Your task to perform on an android device: toggle show notifications on the lock screen Image 0: 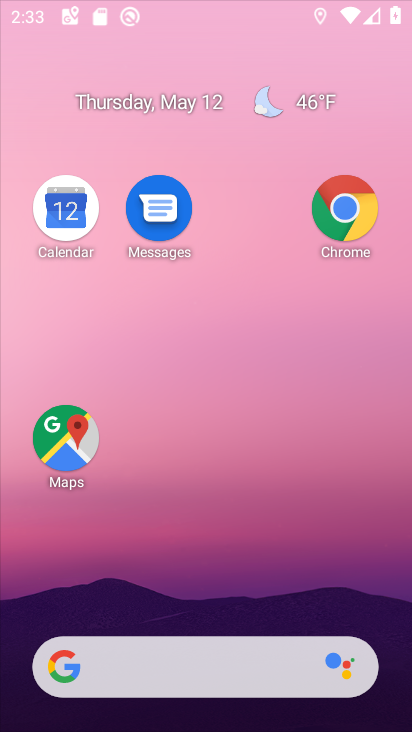
Step 0: drag from (210, 426) to (259, 90)
Your task to perform on an android device: toggle show notifications on the lock screen Image 1: 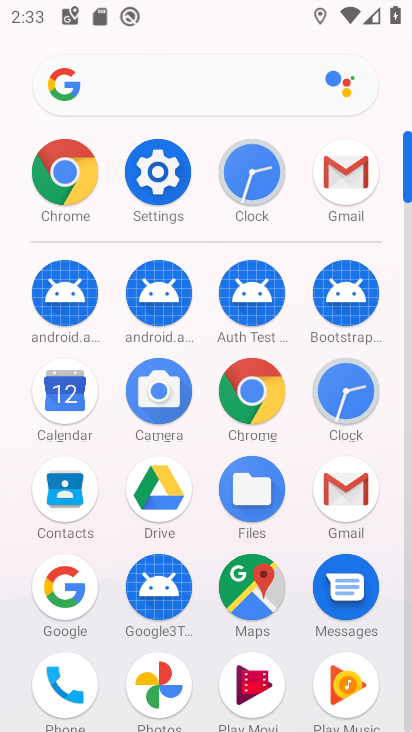
Step 1: click (161, 161)
Your task to perform on an android device: toggle show notifications on the lock screen Image 2: 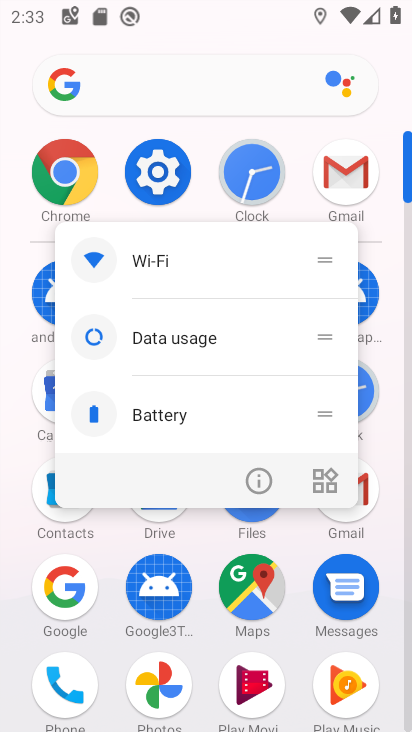
Step 2: click (263, 487)
Your task to perform on an android device: toggle show notifications on the lock screen Image 3: 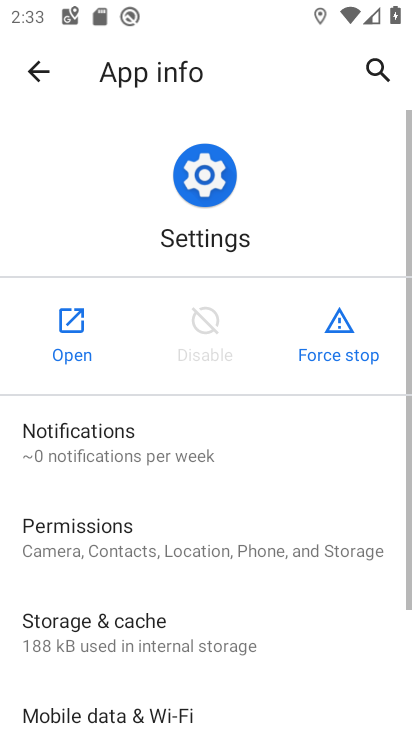
Step 3: click (62, 341)
Your task to perform on an android device: toggle show notifications on the lock screen Image 4: 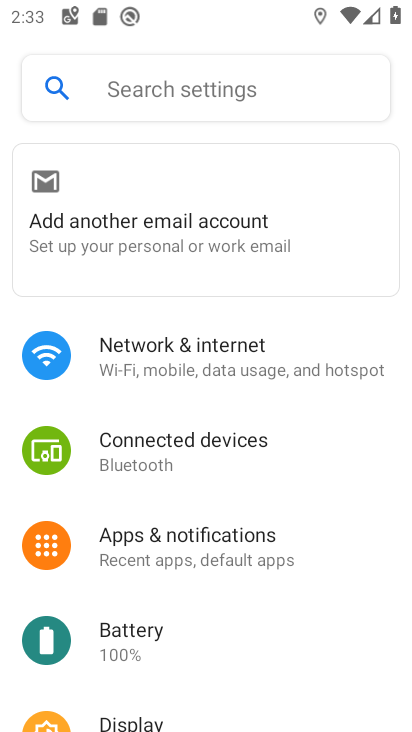
Step 4: drag from (170, 579) to (256, 171)
Your task to perform on an android device: toggle show notifications on the lock screen Image 5: 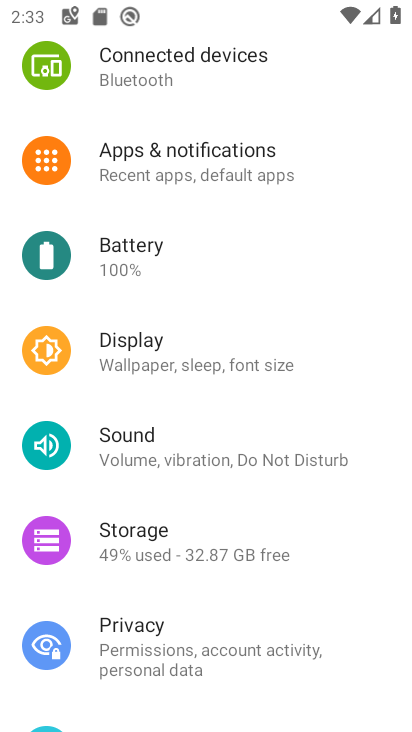
Step 5: click (229, 166)
Your task to perform on an android device: toggle show notifications on the lock screen Image 6: 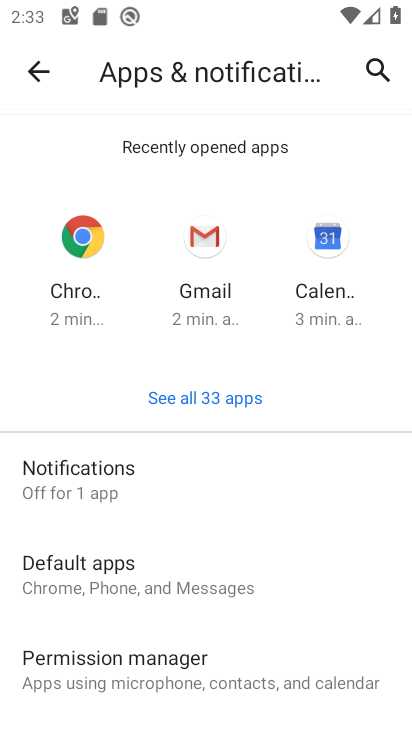
Step 6: click (175, 481)
Your task to perform on an android device: toggle show notifications on the lock screen Image 7: 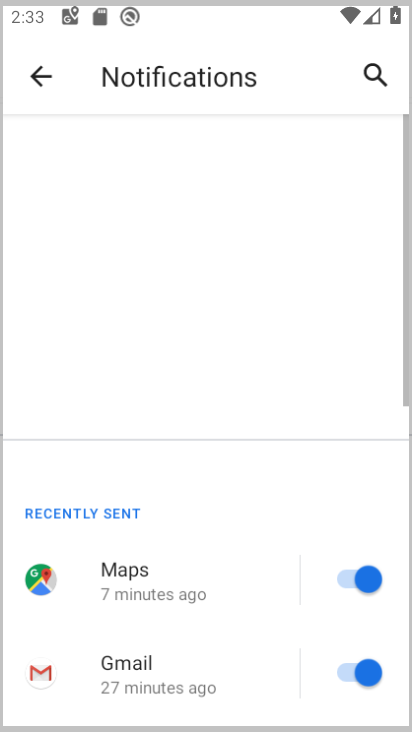
Step 7: drag from (175, 481) to (234, 115)
Your task to perform on an android device: toggle show notifications on the lock screen Image 8: 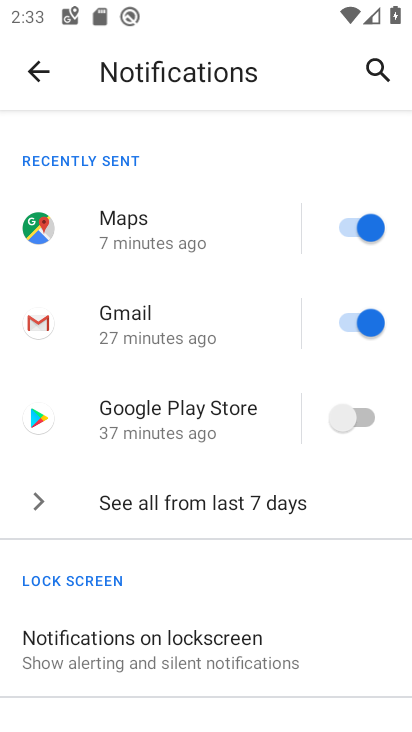
Step 8: drag from (206, 582) to (257, 283)
Your task to perform on an android device: toggle show notifications on the lock screen Image 9: 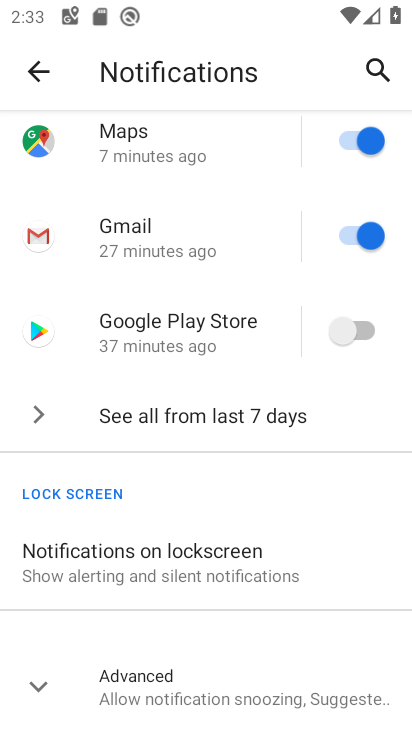
Step 9: click (193, 572)
Your task to perform on an android device: toggle show notifications on the lock screen Image 10: 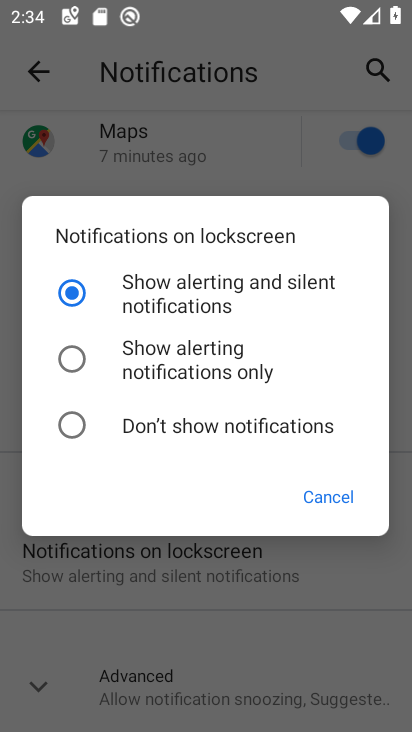
Step 10: click (137, 348)
Your task to perform on an android device: toggle show notifications on the lock screen Image 11: 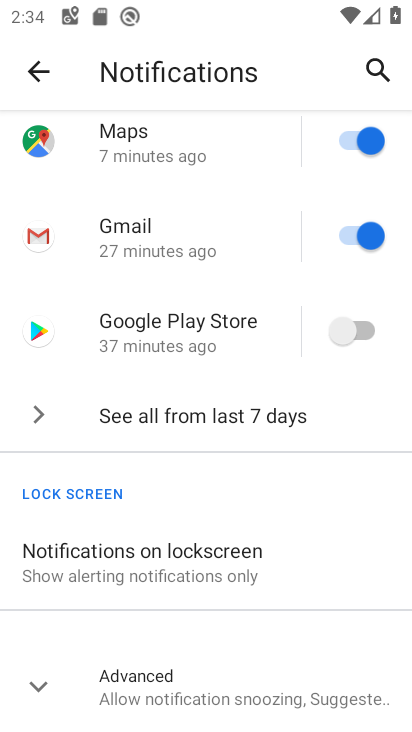
Step 11: task complete